Your task to perform on an android device: Go to Yahoo.com Image 0: 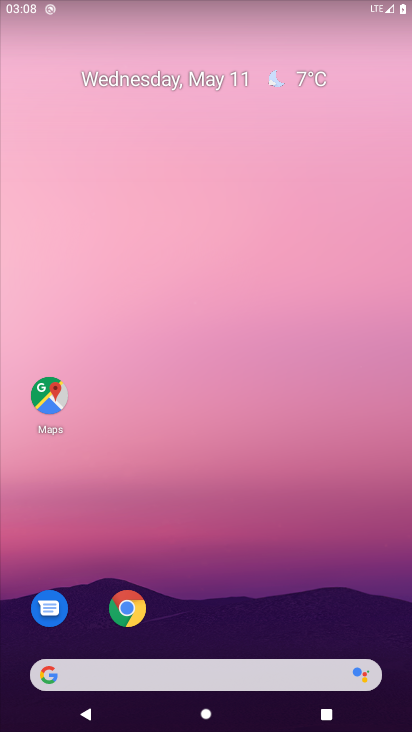
Step 0: click (129, 611)
Your task to perform on an android device: Go to Yahoo.com Image 1: 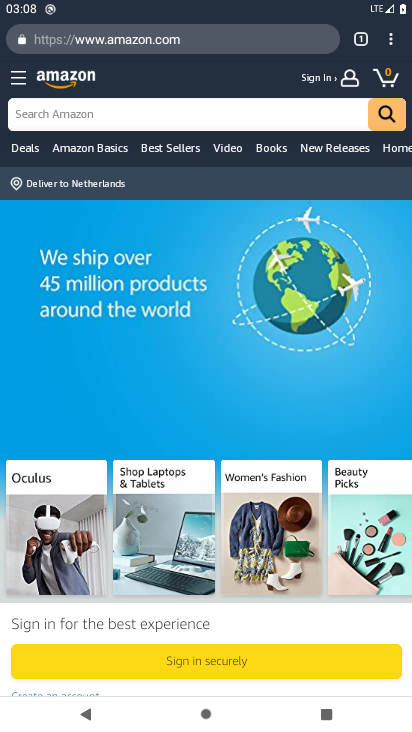
Step 1: click (394, 37)
Your task to perform on an android device: Go to Yahoo.com Image 2: 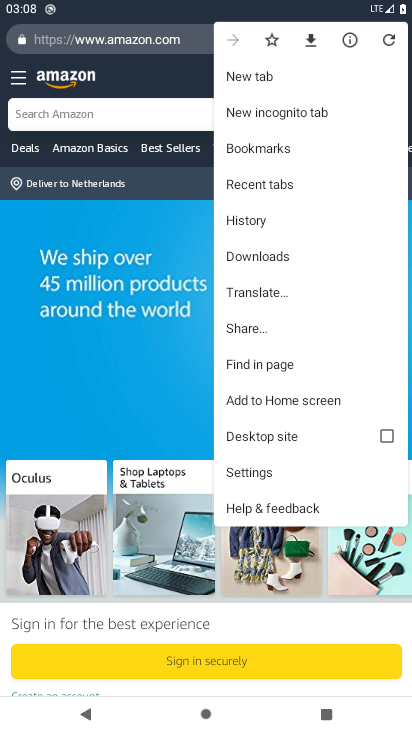
Step 2: click (262, 71)
Your task to perform on an android device: Go to Yahoo.com Image 3: 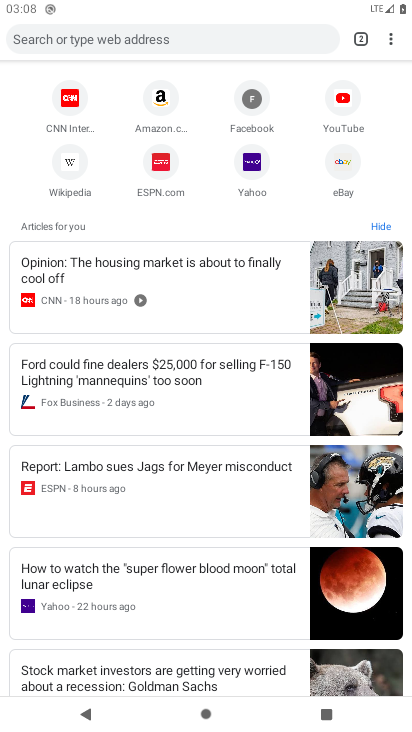
Step 3: click (254, 165)
Your task to perform on an android device: Go to Yahoo.com Image 4: 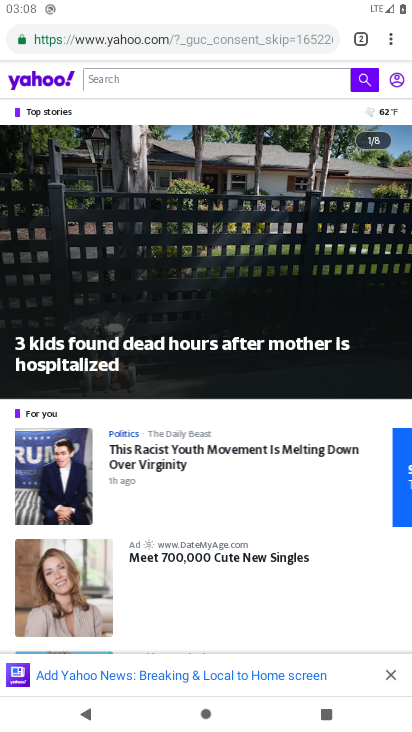
Step 4: task complete